Your task to perform on an android device: delete the emails in spam in the gmail app Image 0: 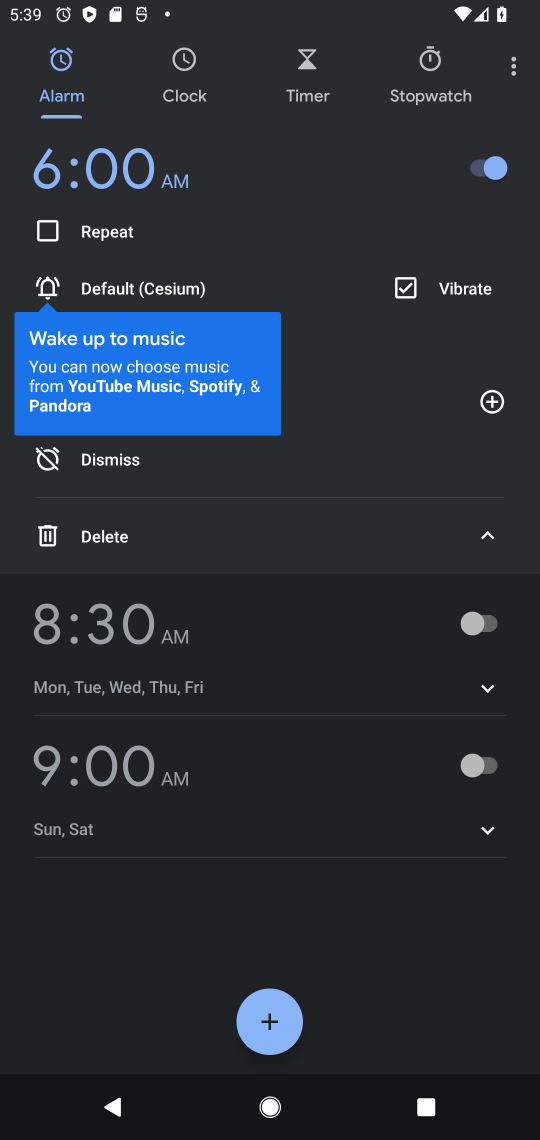
Step 0: press home button
Your task to perform on an android device: delete the emails in spam in the gmail app Image 1: 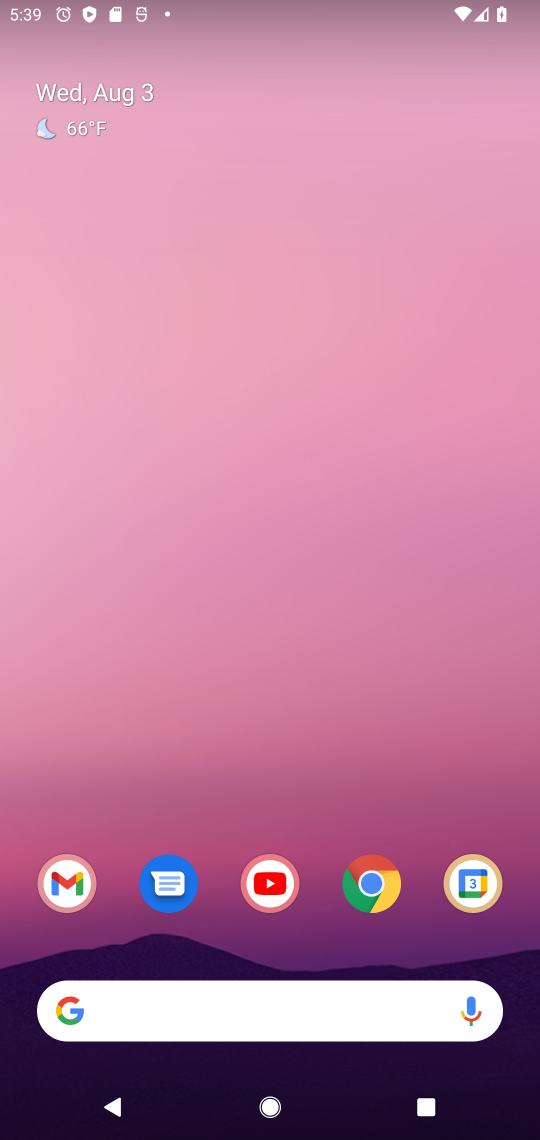
Step 1: drag from (279, 980) to (189, 179)
Your task to perform on an android device: delete the emails in spam in the gmail app Image 2: 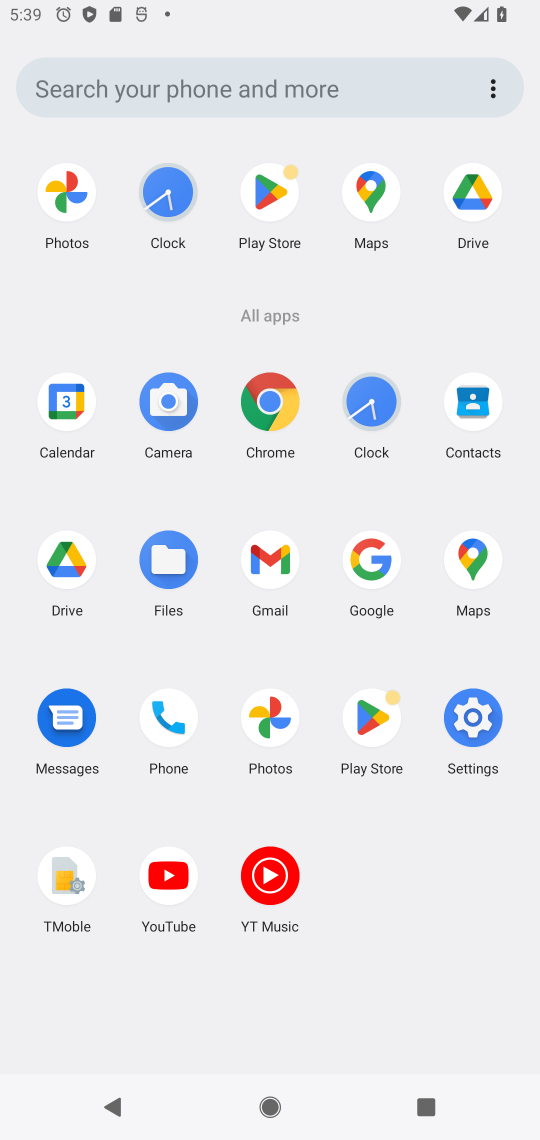
Step 2: click (288, 560)
Your task to perform on an android device: delete the emails in spam in the gmail app Image 3: 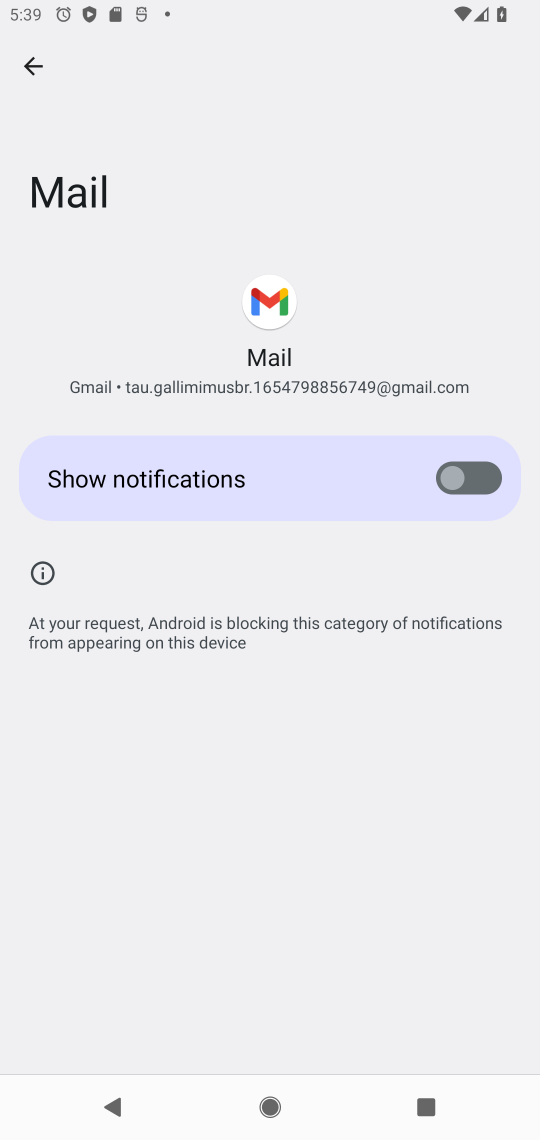
Step 3: click (27, 73)
Your task to perform on an android device: delete the emails in spam in the gmail app Image 4: 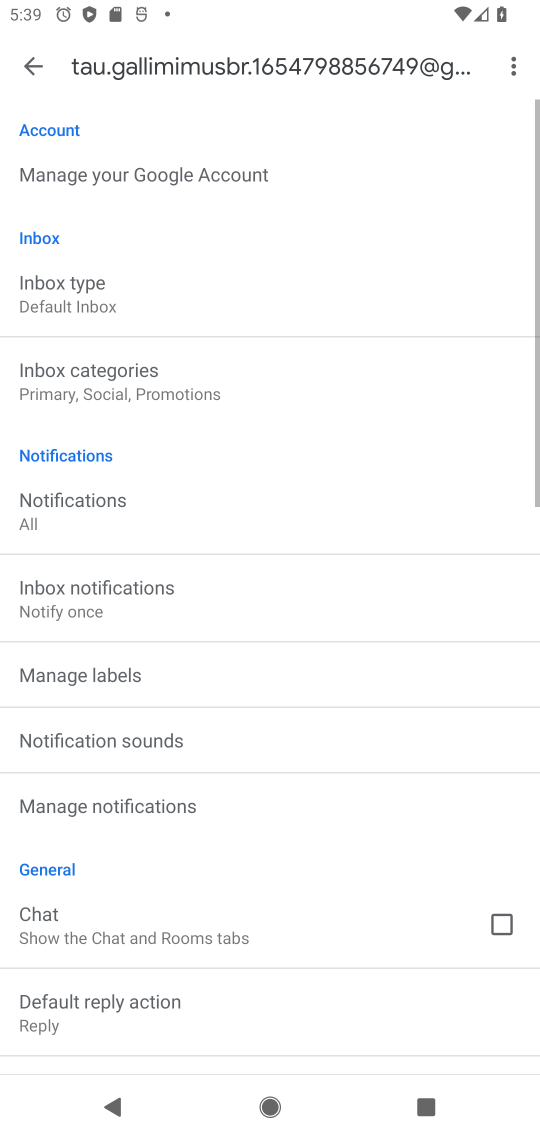
Step 4: click (28, 71)
Your task to perform on an android device: delete the emails in spam in the gmail app Image 5: 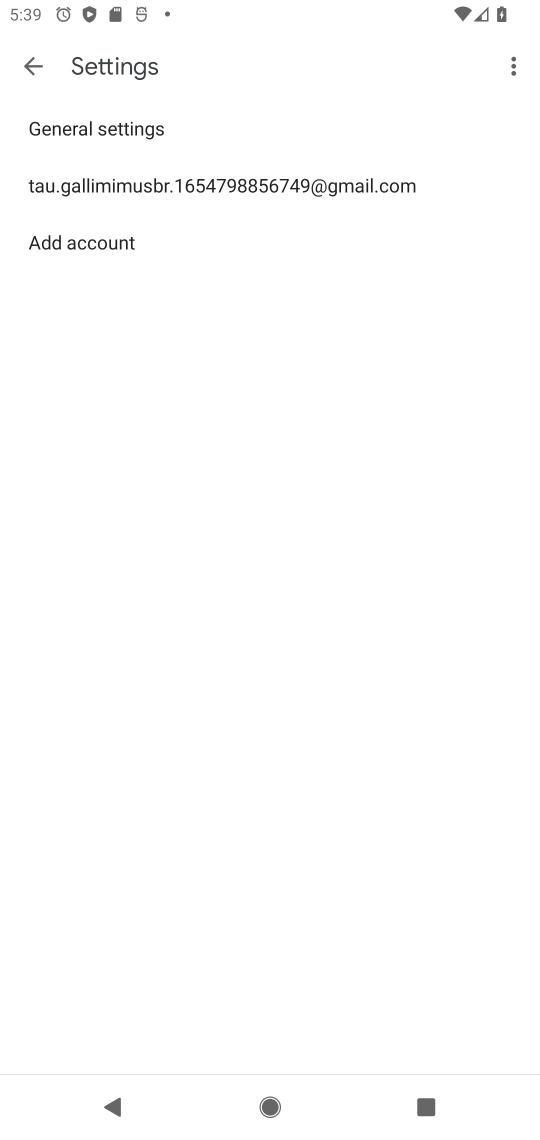
Step 5: click (28, 71)
Your task to perform on an android device: delete the emails in spam in the gmail app Image 6: 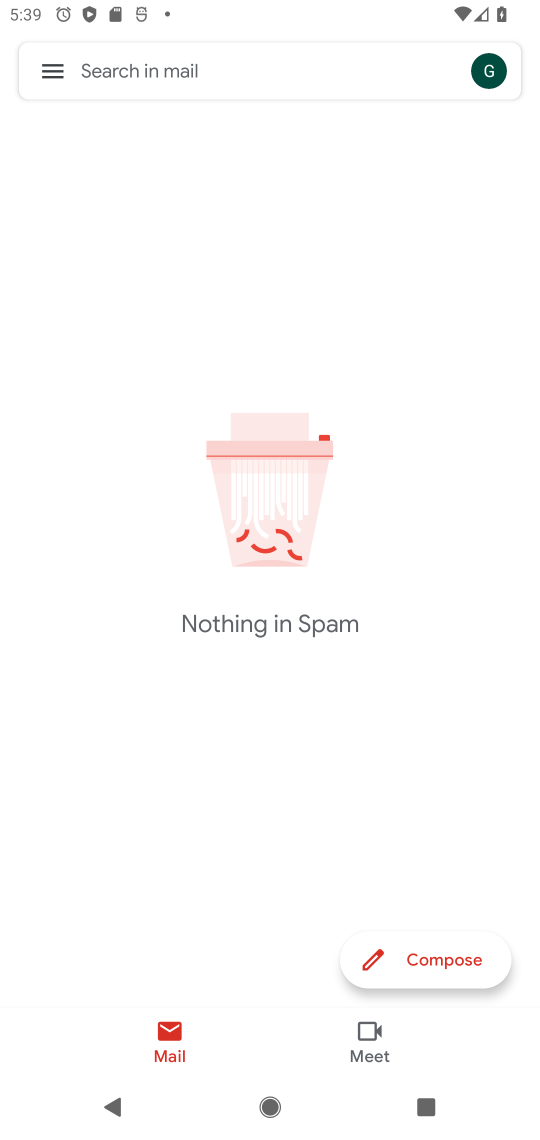
Step 6: click (43, 69)
Your task to perform on an android device: delete the emails in spam in the gmail app Image 7: 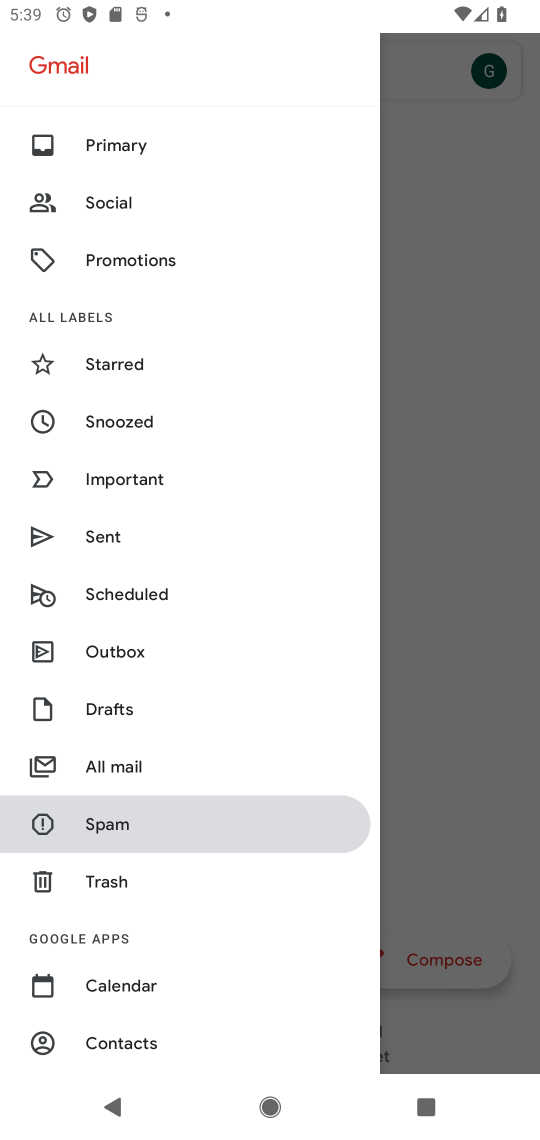
Step 7: click (162, 829)
Your task to perform on an android device: delete the emails in spam in the gmail app Image 8: 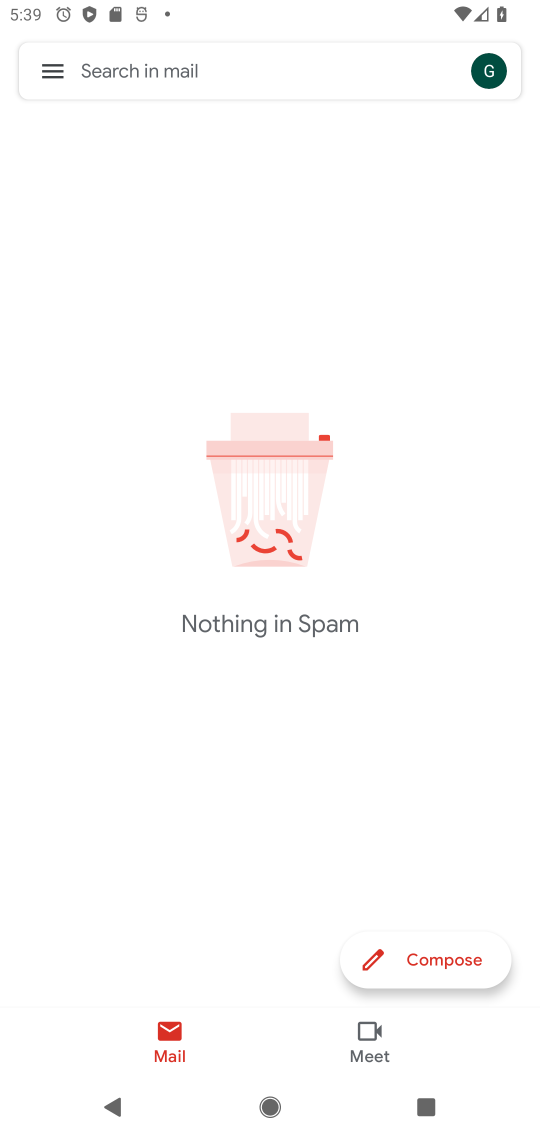
Step 8: task complete